Your task to perform on an android device: turn off picture-in-picture Image 0: 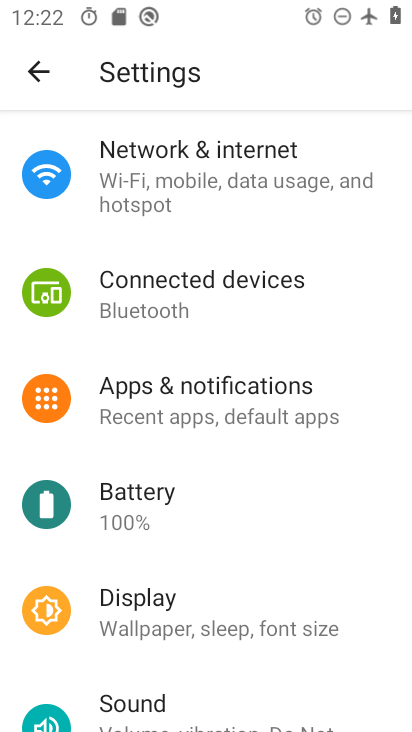
Step 0: press home button
Your task to perform on an android device: turn off picture-in-picture Image 1: 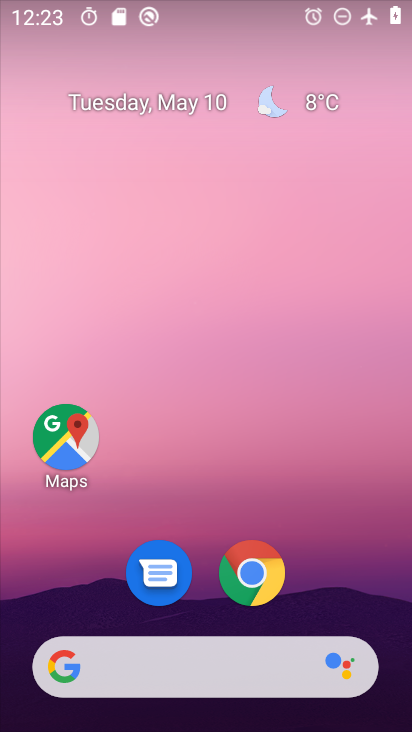
Step 1: click (277, 560)
Your task to perform on an android device: turn off picture-in-picture Image 2: 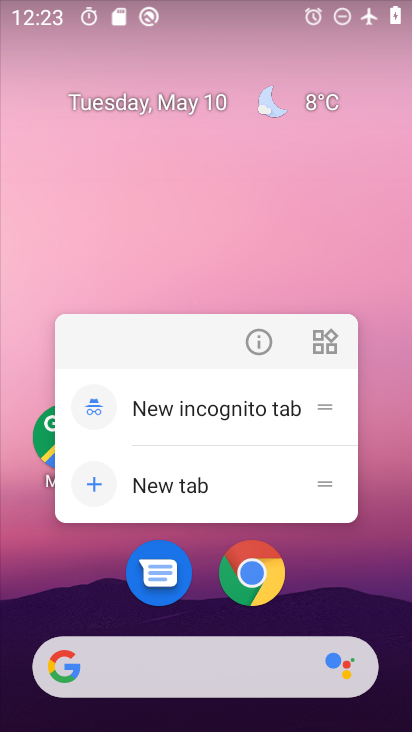
Step 2: click (266, 340)
Your task to perform on an android device: turn off picture-in-picture Image 3: 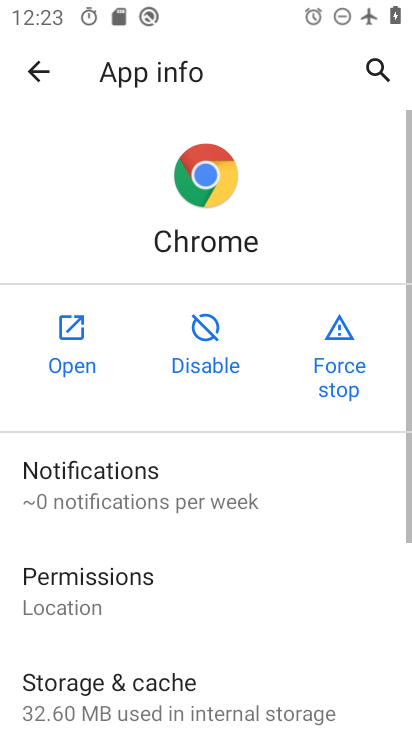
Step 3: drag from (212, 596) to (239, 99)
Your task to perform on an android device: turn off picture-in-picture Image 4: 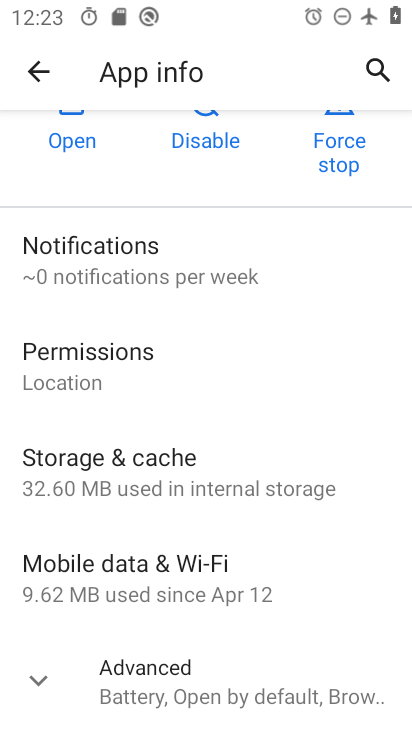
Step 4: click (187, 681)
Your task to perform on an android device: turn off picture-in-picture Image 5: 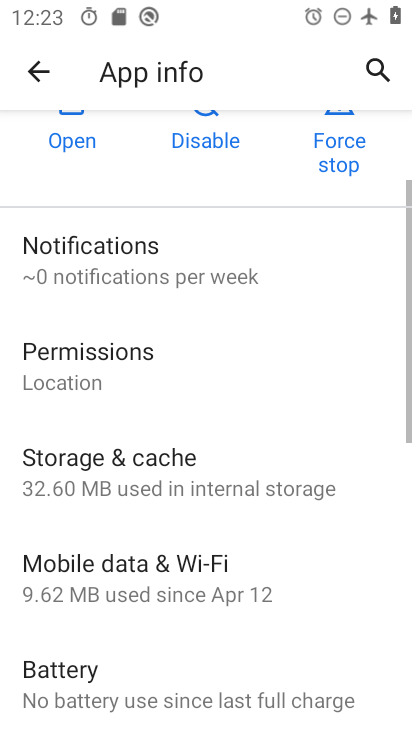
Step 5: task complete